Your task to perform on an android device: Open notification settings Image 0: 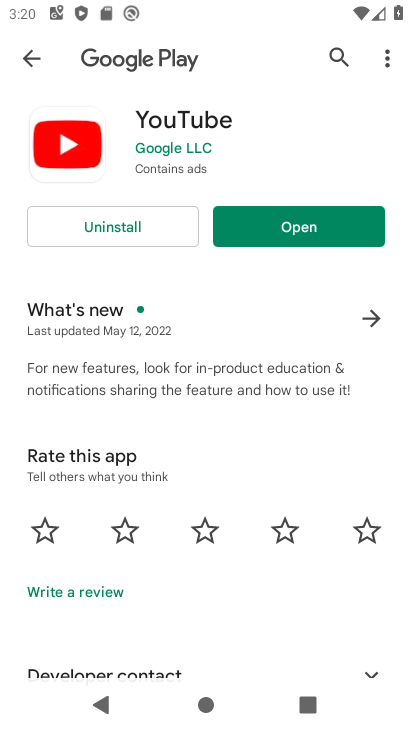
Step 0: press home button
Your task to perform on an android device: Open notification settings Image 1: 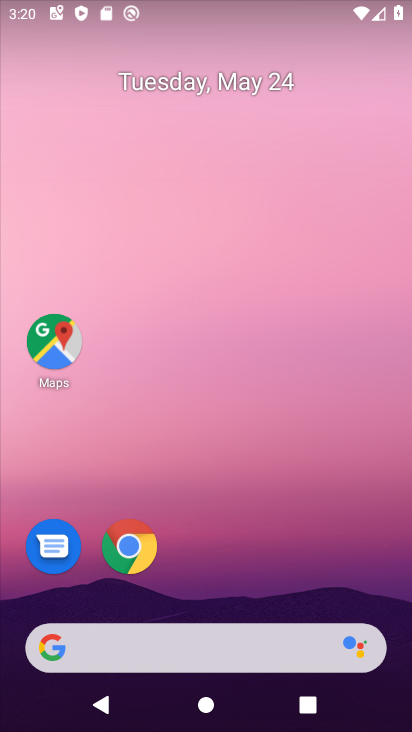
Step 1: drag from (267, 522) to (176, 52)
Your task to perform on an android device: Open notification settings Image 2: 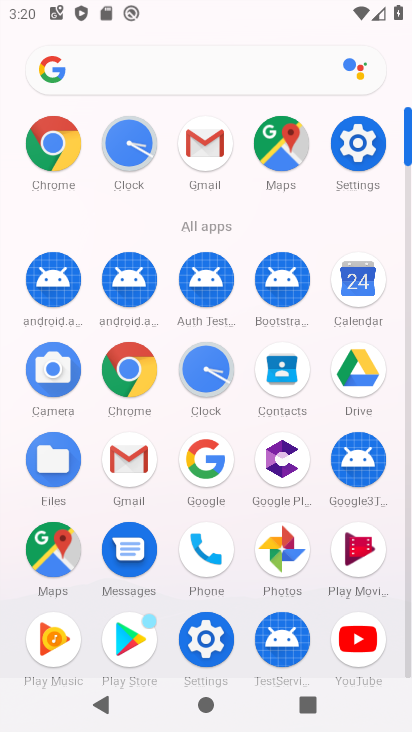
Step 2: click (347, 142)
Your task to perform on an android device: Open notification settings Image 3: 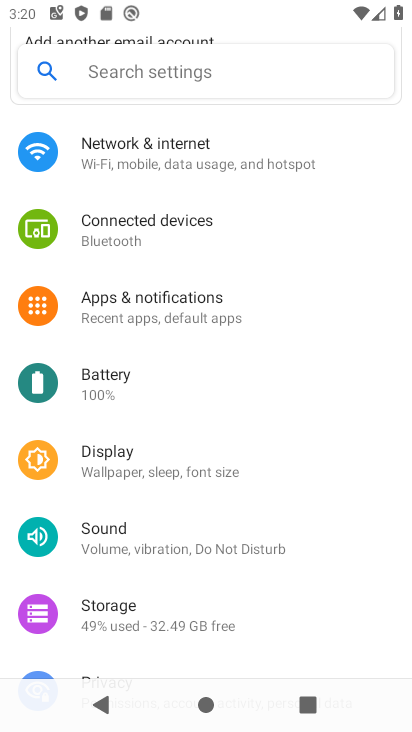
Step 3: click (193, 321)
Your task to perform on an android device: Open notification settings Image 4: 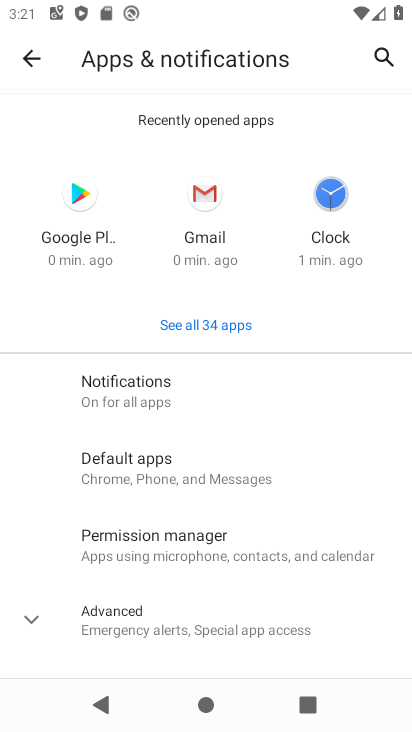
Step 4: task complete